Your task to perform on an android device: Open calendar and show me the first week of next month Image 0: 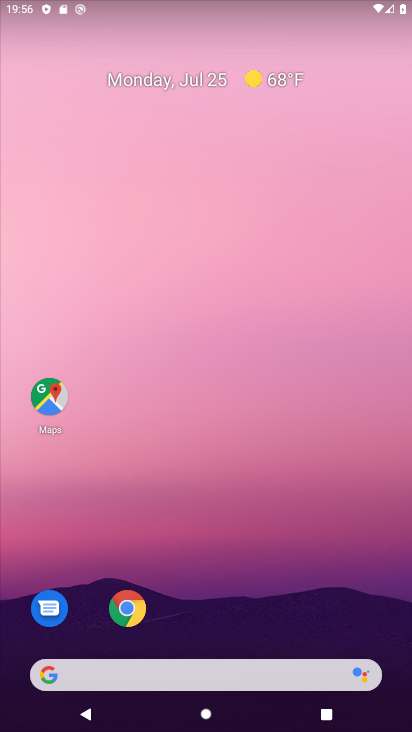
Step 0: drag from (243, 656) to (236, 30)
Your task to perform on an android device: Open calendar and show me the first week of next month Image 1: 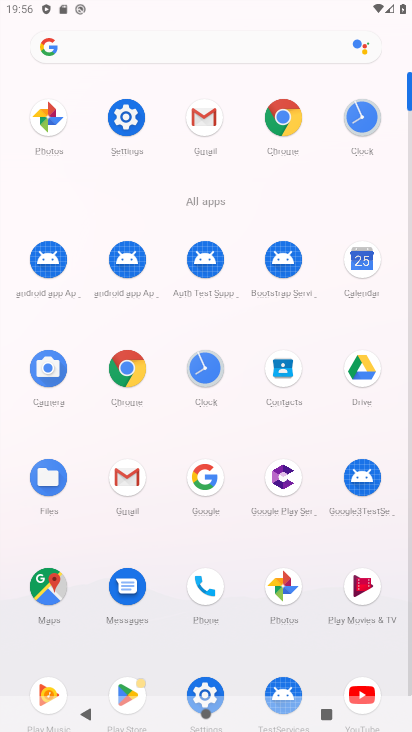
Step 1: click (367, 264)
Your task to perform on an android device: Open calendar and show me the first week of next month Image 2: 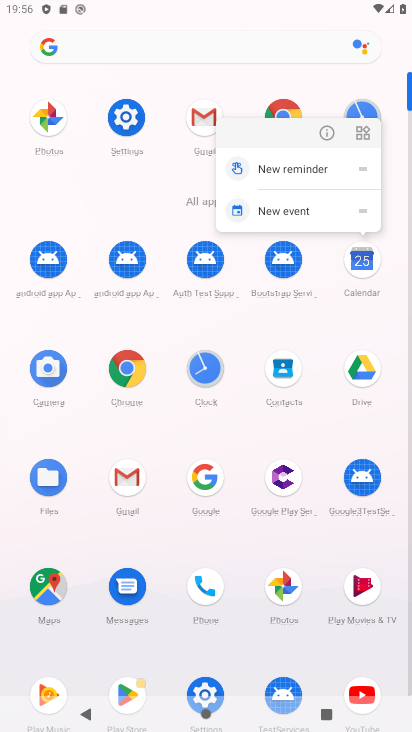
Step 2: click (367, 264)
Your task to perform on an android device: Open calendar and show me the first week of next month Image 3: 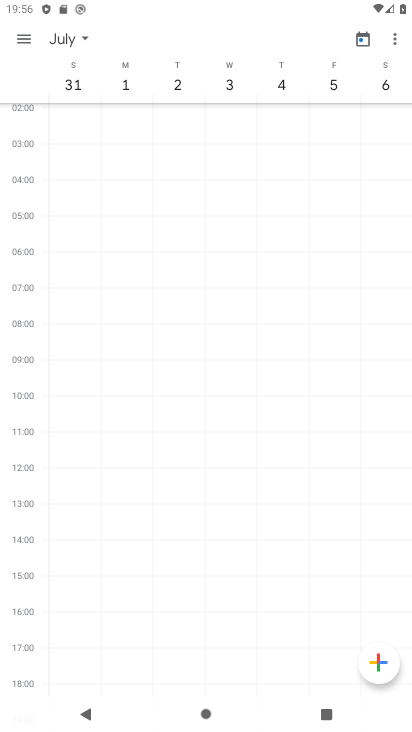
Step 3: click (88, 37)
Your task to perform on an android device: Open calendar and show me the first week of next month Image 4: 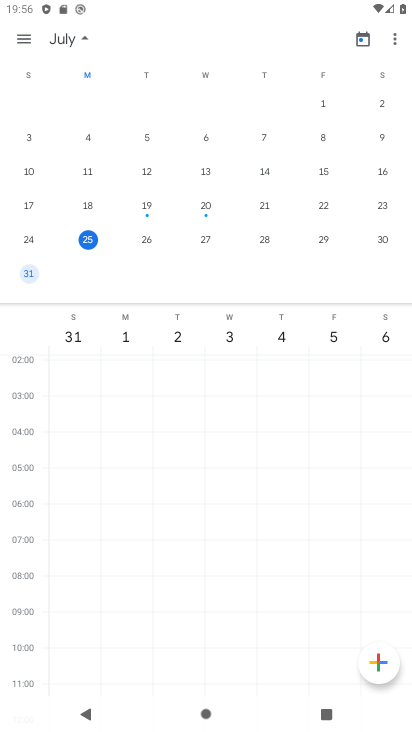
Step 4: drag from (99, 366) to (106, 141)
Your task to perform on an android device: Open calendar and show me the first week of next month Image 5: 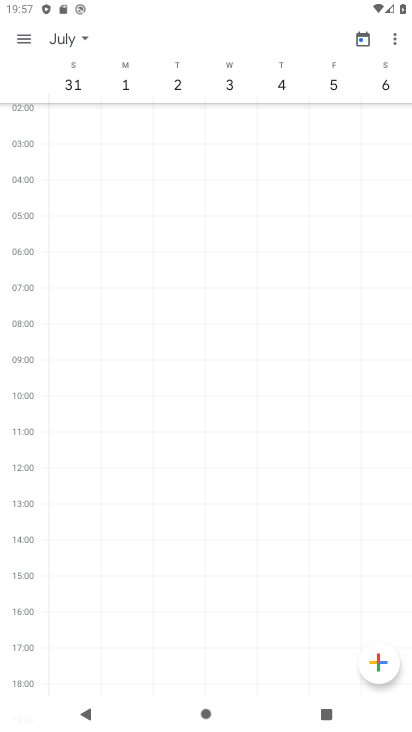
Step 5: click (16, 40)
Your task to perform on an android device: Open calendar and show me the first week of next month Image 6: 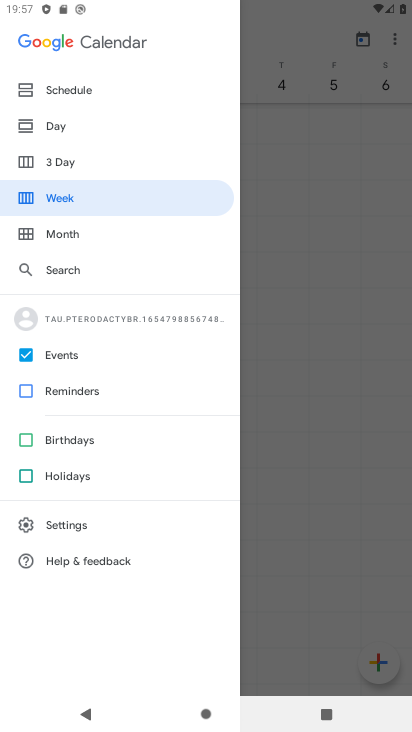
Step 6: click (52, 204)
Your task to perform on an android device: Open calendar and show me the first week of next month Image 7: 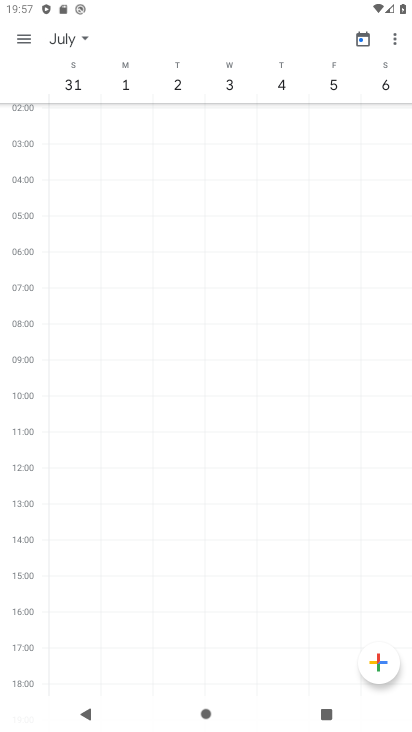
Step 7: task complete